Your task to perform on an android device: delete the emails in spam in the gmail app Image 0: 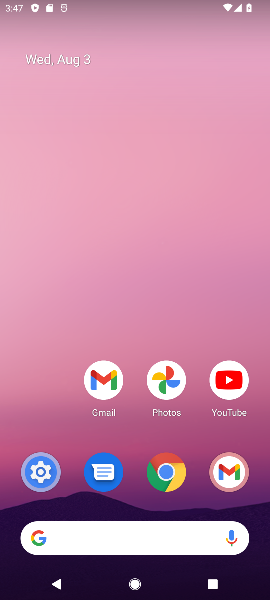
Step 0: drag from (183, 438) to (110, 45)
Your task to perform on an android device: delete the emails in spam in the gmail app Image 1: 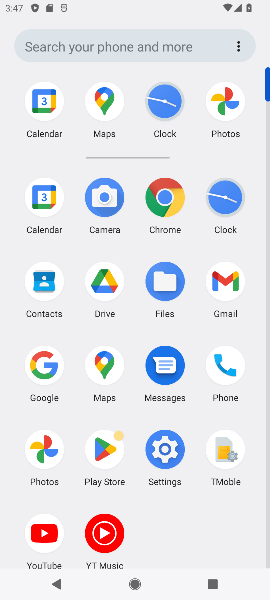
Step 1: click (233, 280)
Your task to perform on an android device: delete the emails in spam in the gmail app Image 2: 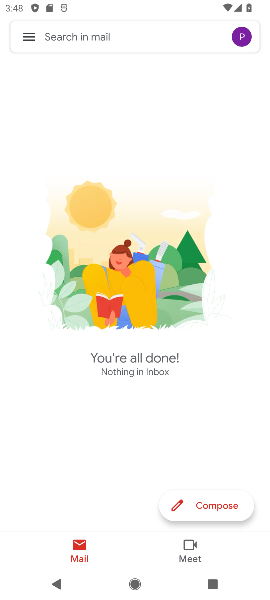
Step 2: click (27, 40)
Your task to perform on an android device: delete the emails in spam in the gmail app Image 3: 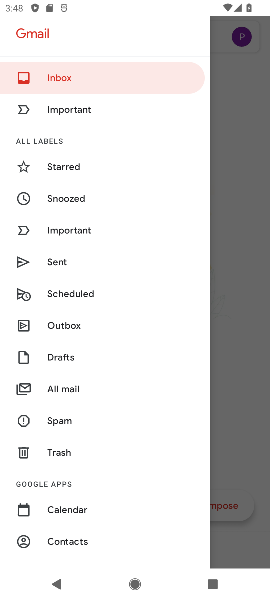
Step 3: click (70, 415)
Your task to perform on an android device: delete the emails in spam in the gmail app Image 4: 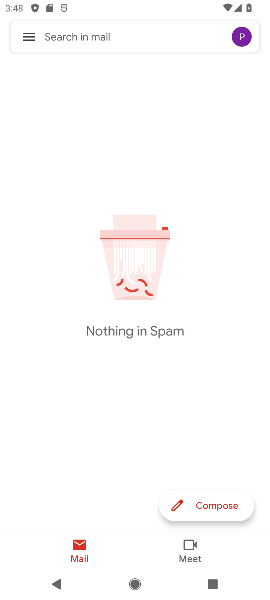
Step 4: task complete